Your task to perform on an android device: Open location settings Image 0: 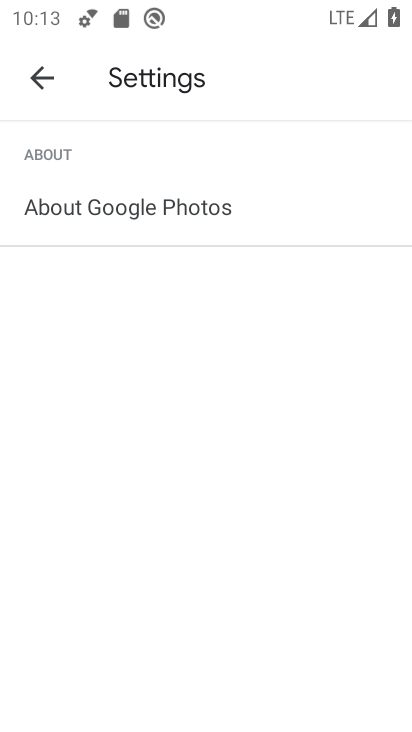
Step 0: press home button
Your task to perform on an android device: Open location settings Image 1: 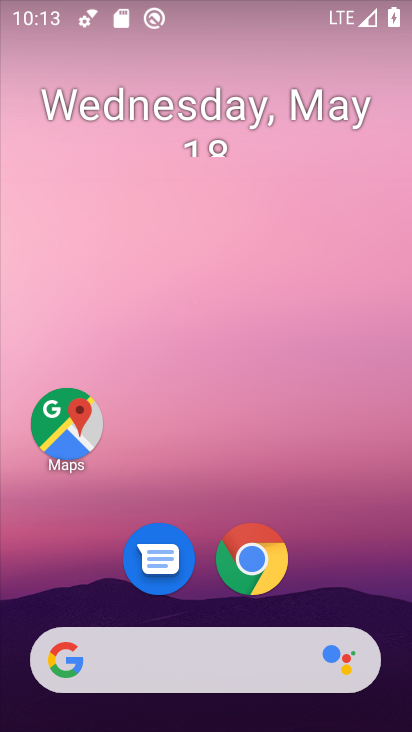
Step 1: drag from (219, 605) to (292, 82)
Your task to perform on an android device: Open location settings Image 2: 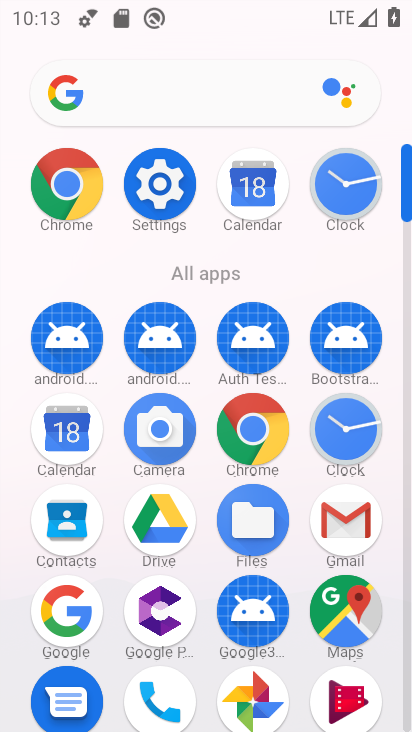
Step 2: click (180, 181)
Your task to perform on an android device: Open location settings Image 3: 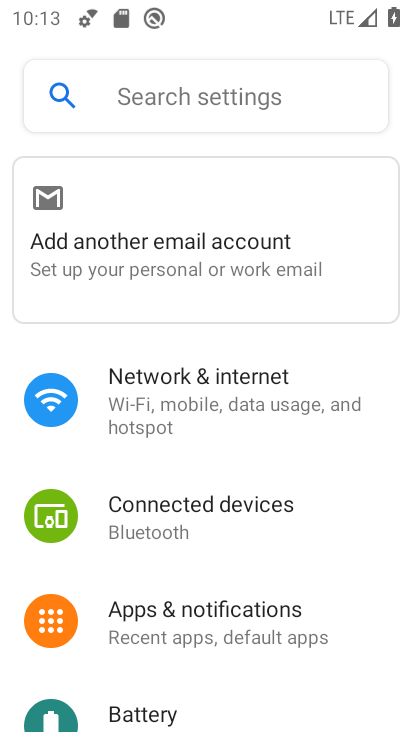
Step 3: drag from (207, 525) to (235, 185)
Your task to perform on an android device: Open location settings Image 4: 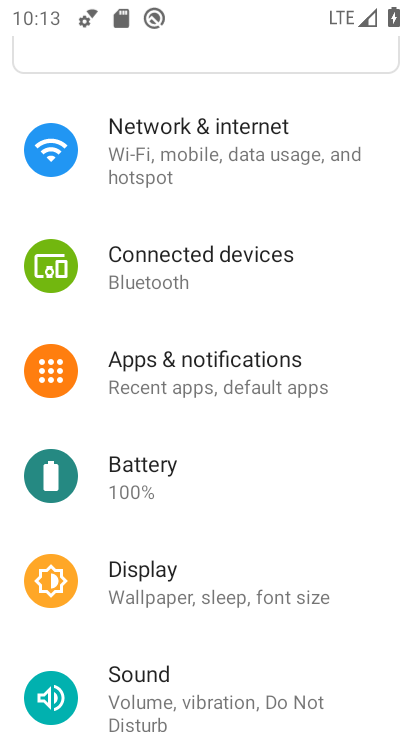
Step 4: drag from (188, 517) to (223, 248)
Your task to perform on an android device: Open location settings Image 5: 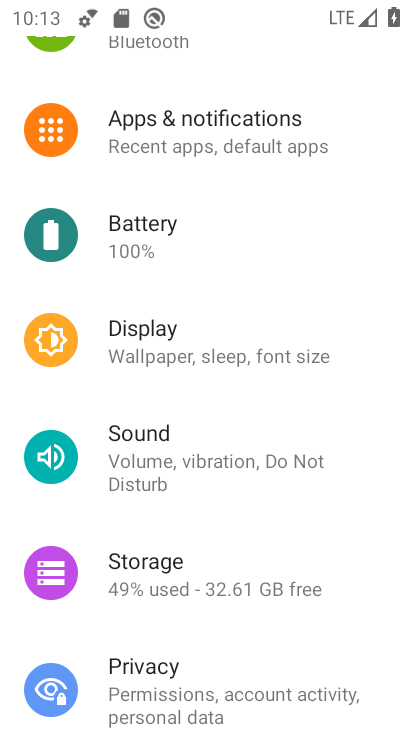
Step 5: drag from (190, 652) to (200, 461)
Your task to perform on an android device: Open location settings Image 6: 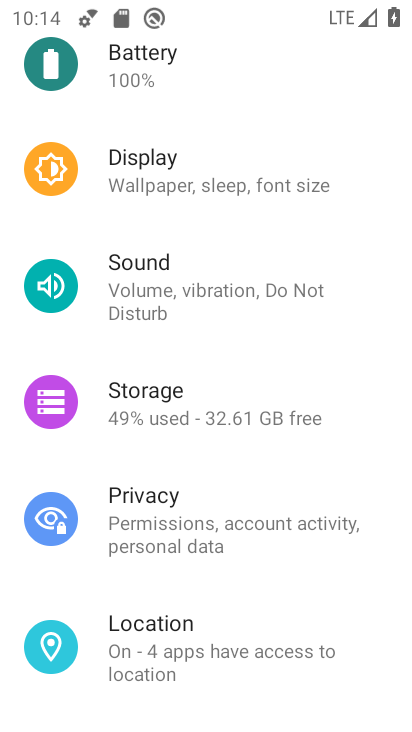
Step 6: click (176, 643)
Your task to perform on an android device: Open location settings Image 7: 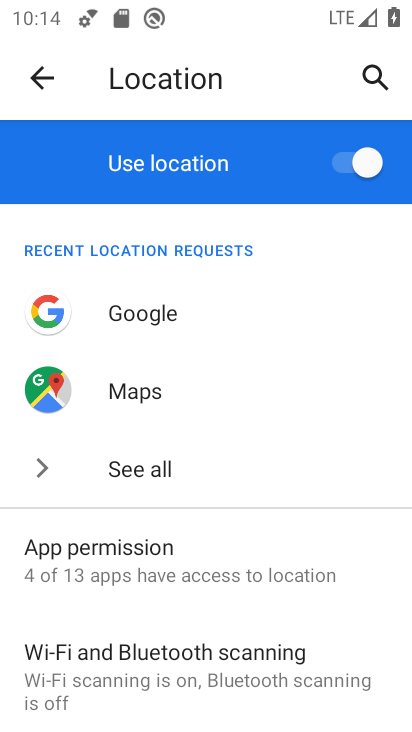
Step 7: task complete